Your task to perform on an android device: open app "Upside-Cash back on gas & food" (install if not already installed) and go to login screen Image 0: 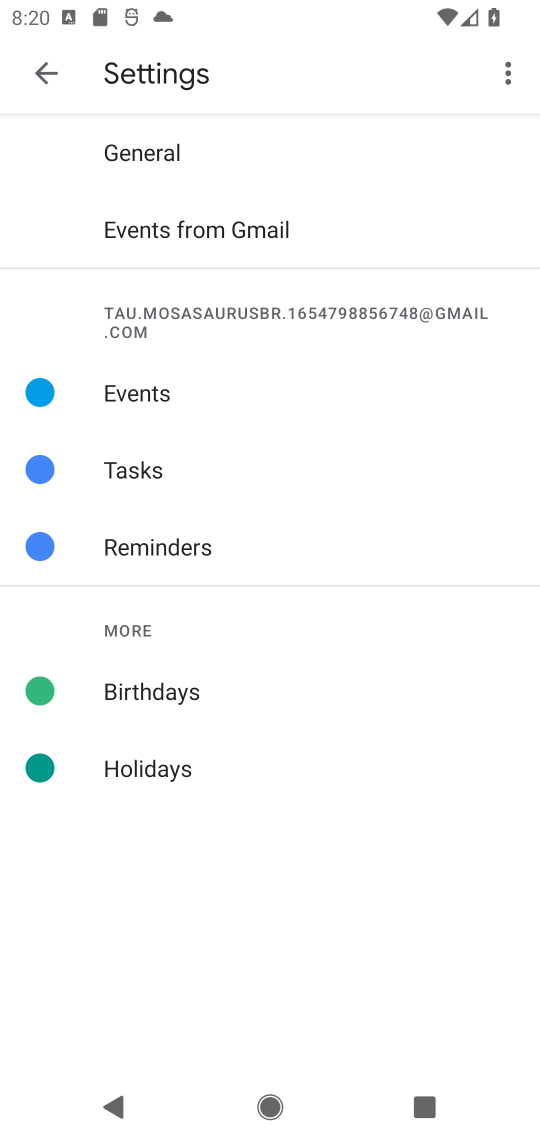
Step 0: press home button
Your task to perform on an android device: open app "Upside-Cash back on gas & food" (install if not already installed) and go to login screen Image 1: 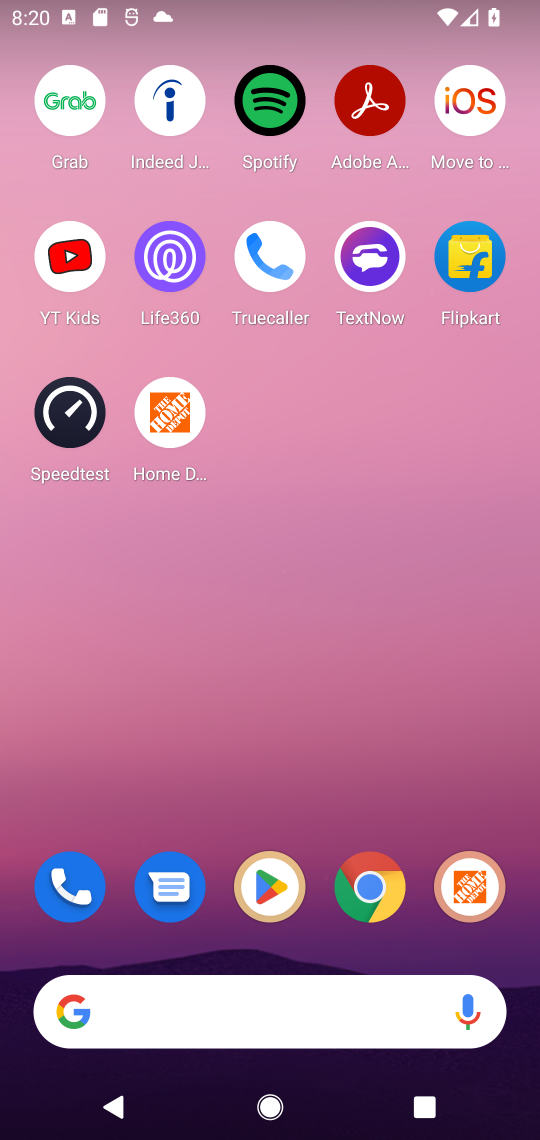
Step 1: click (265, 898)
Your task to perform on an android device: open app "Upside-Cash back on gas & food" (install if not already installed) and go to login screen Image 2: 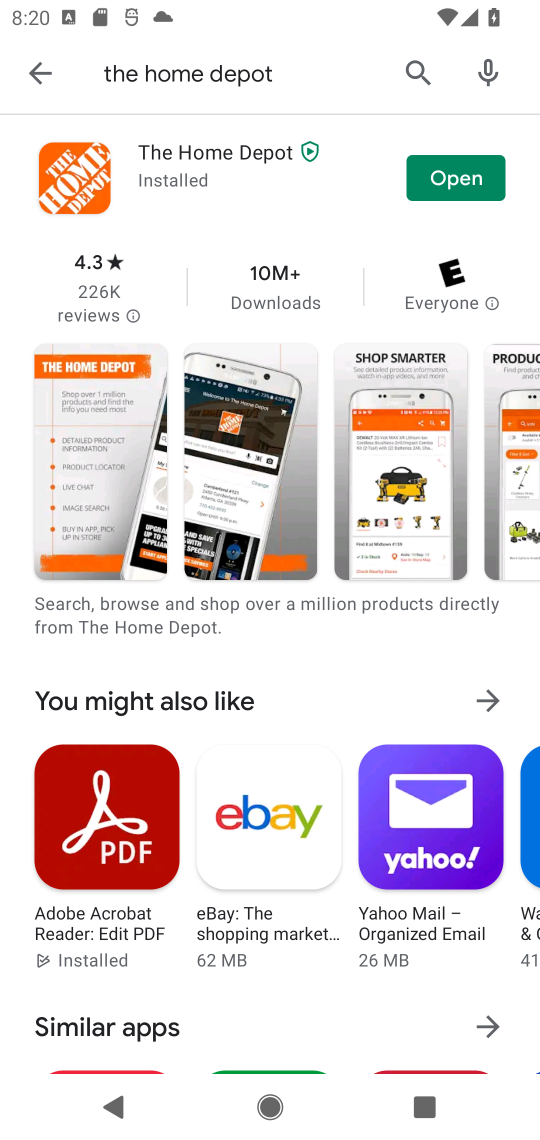
Step 2: click (417, 67)
Your task to perform on an android device: open app "Upside-Cash back on gas & food" (install if not already installed) and go to login screen Image 3: 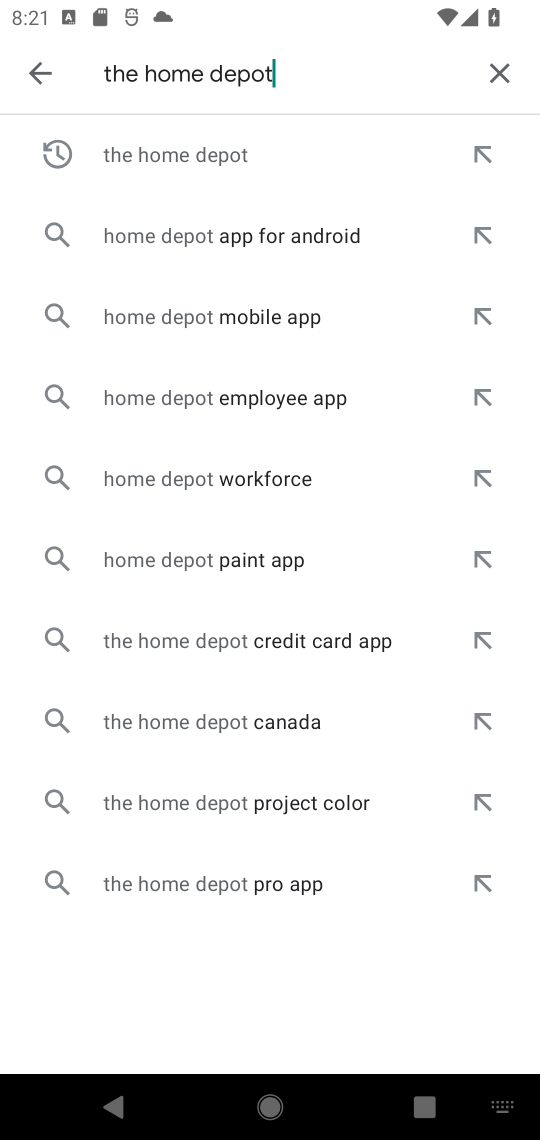
Step 3: click (499, 75)
Your task to perform on an android device: open app "Upside-Cash back on gas & food" (install if not already installed) and go to login screen Image 4: 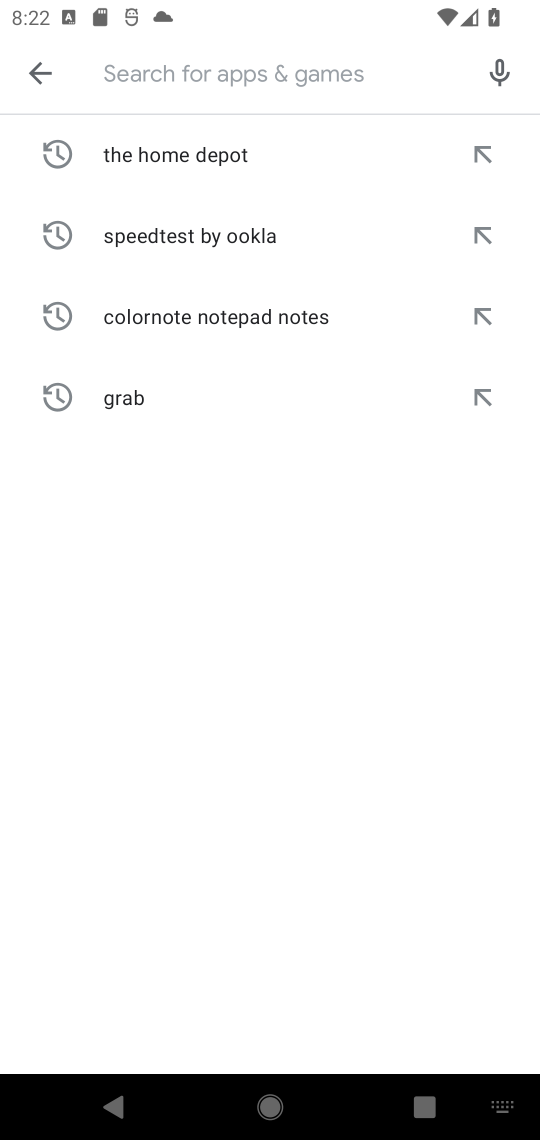
Step 4: type "Upside-Cash back on gas & food"
Your task to perform on an android device: open app "Upside-Cash back on gas & food" (install if not already installed) and go to login screen Image 5: 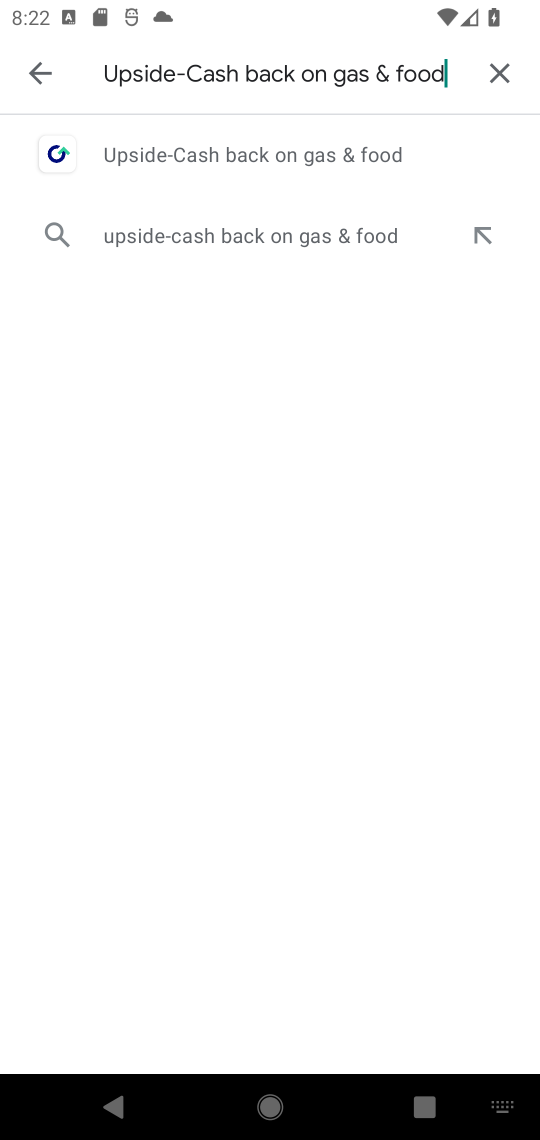
Step 5: click (261, 147)
Your task to perform on an android device: open app "Upside-Cash back on gas & food" (install if not already installed) and go to login screen Image 6: 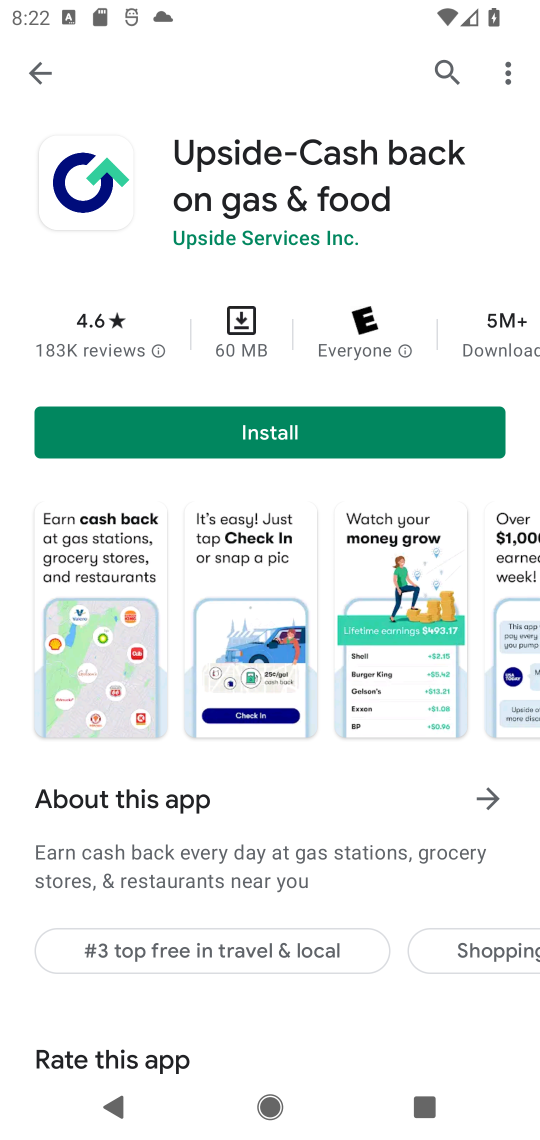
Step 6: click (269, 433)
Your task to perform on an android device: open app "Upside-Cash back on gas & food" (install if not already installed) and go to login screen Image 7: 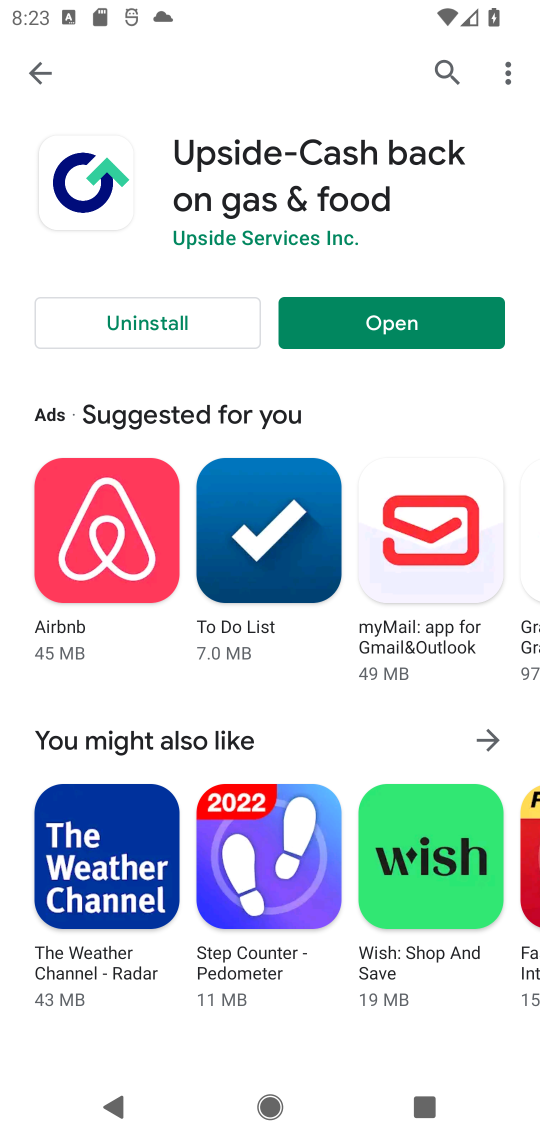
Step 7: click (402, 317)
Your task to perform on an android device: open app "Upside-Cash back on gas & food" (install if not already installed) and go to login screen Image 8: 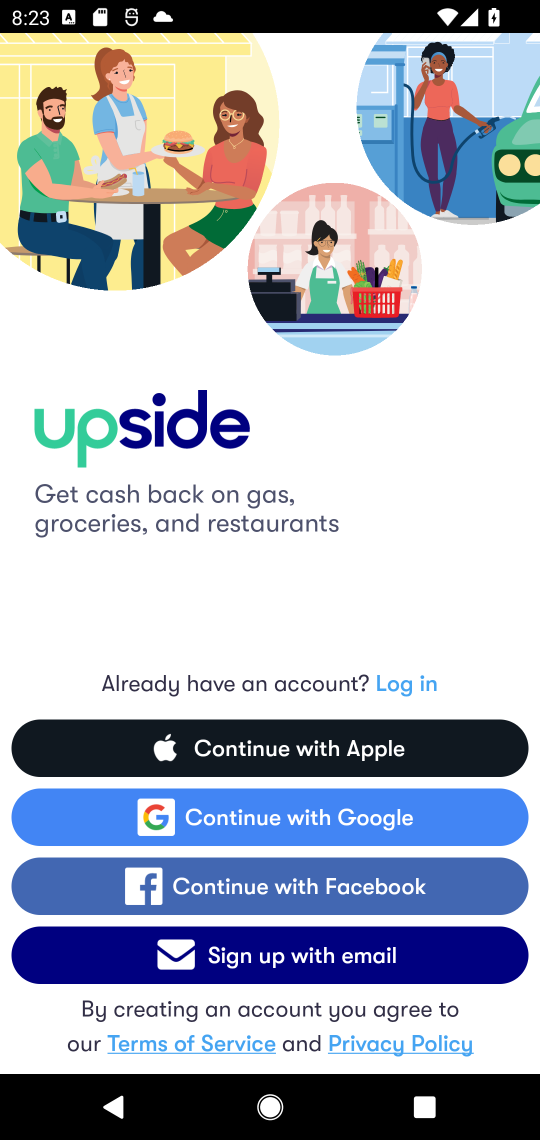
Step 8: task complete